Your task to perform on an android device: Is it going to rain today? Image 0: 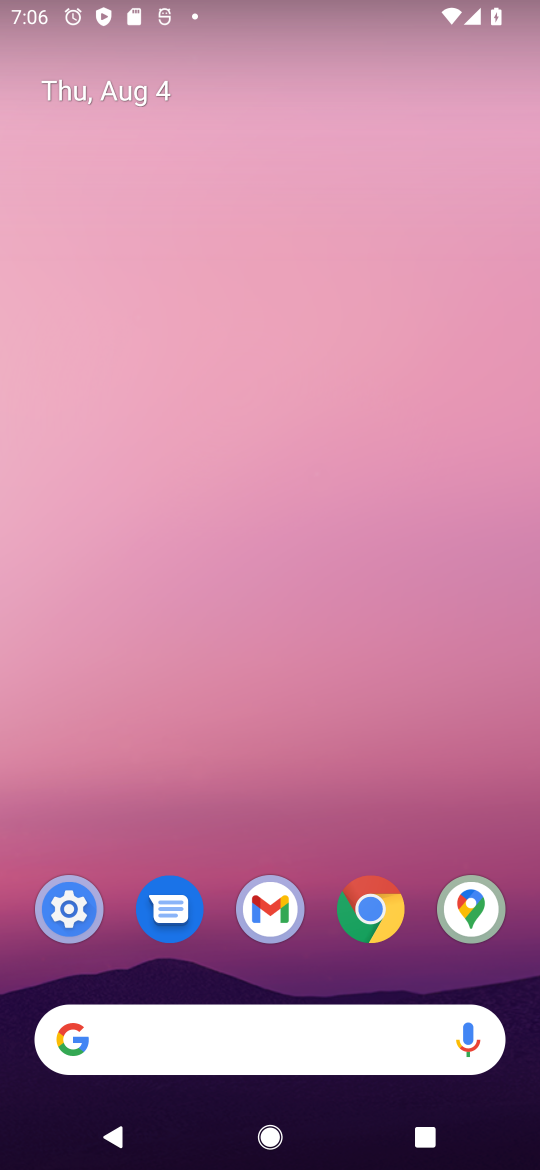
Step 0: drag from (141, 784) to (146, 19)
Your task to perform on an android device: Is it going to rain today? Image 1: 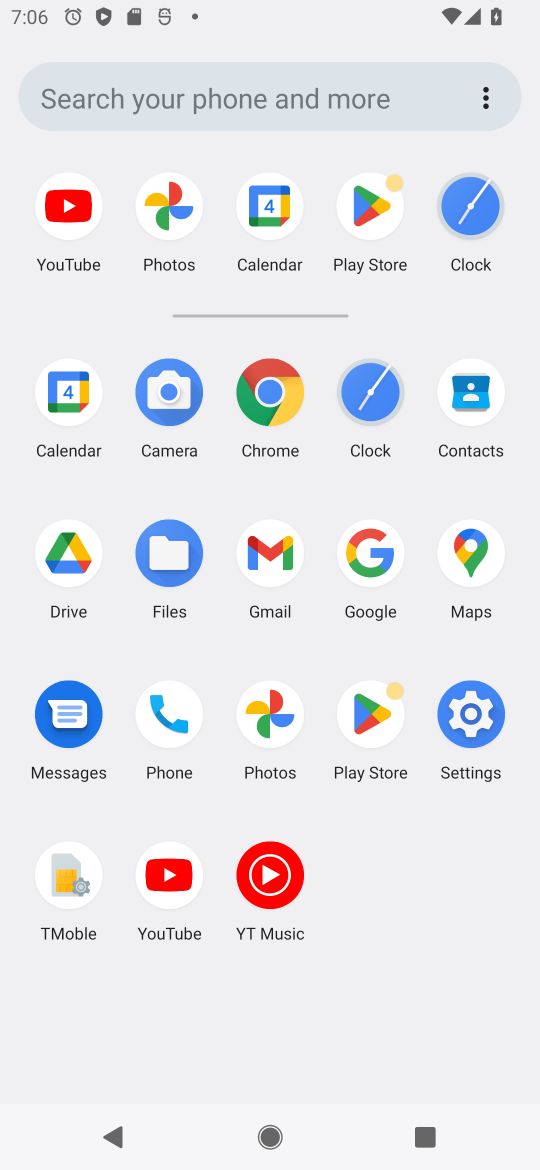
Step 1: click (377, 566)
Your task to perform on an android device: Is it going to rain today? Image 2: 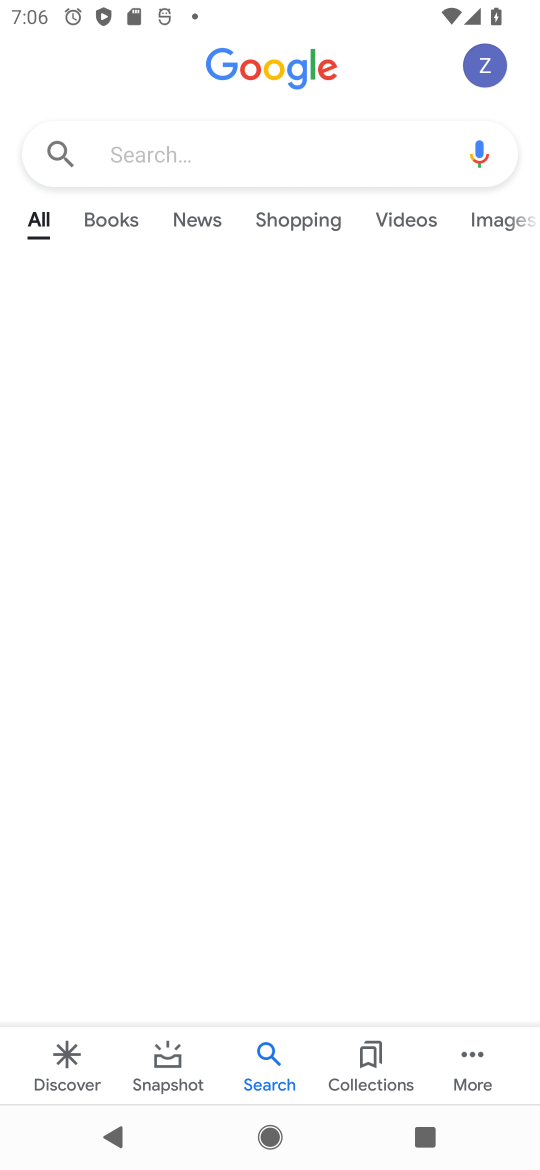
Step 2: click (133, 159)
Your task to perform on an android device: Is it going to rain today? Image 3: 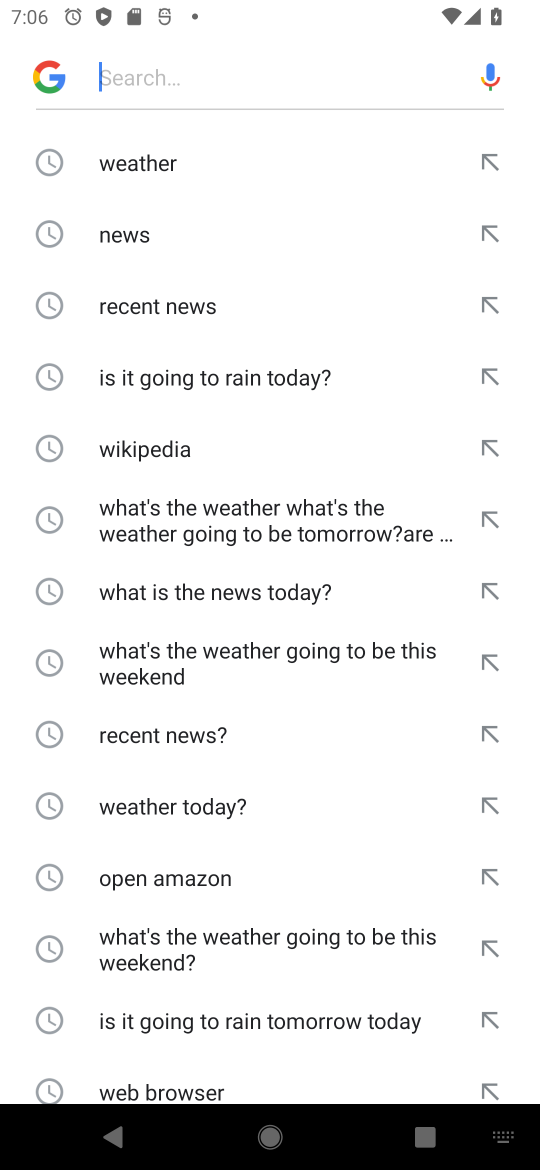
Step 3: click (133, 159)
Your task to perform on an android device: Is it going to rain today? Image 4: 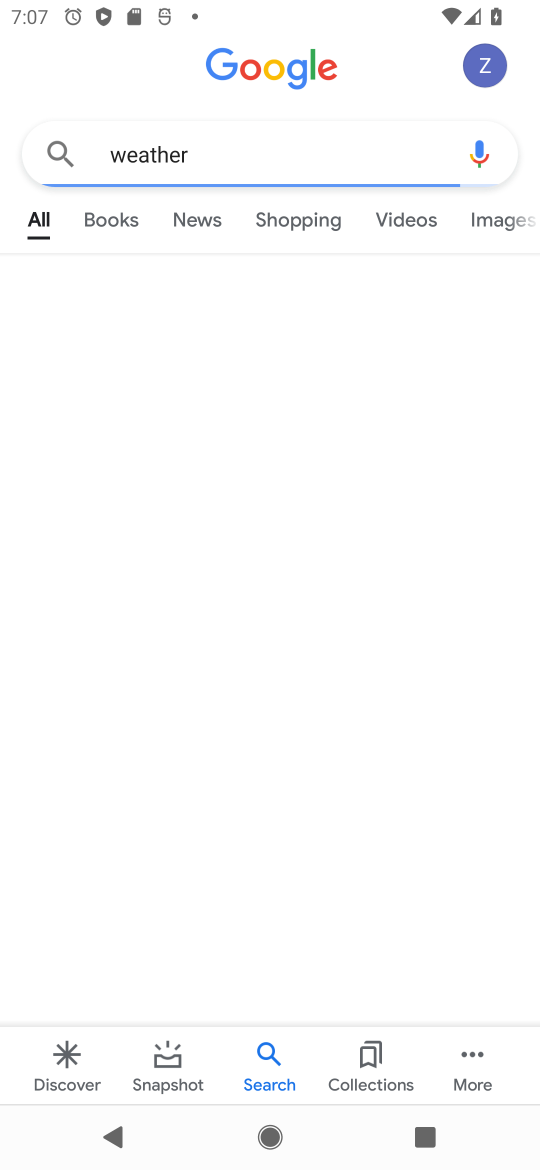
Step 4: click (231, 155)
Your task to perform on an android device: Is it going to rain today? Image 5: 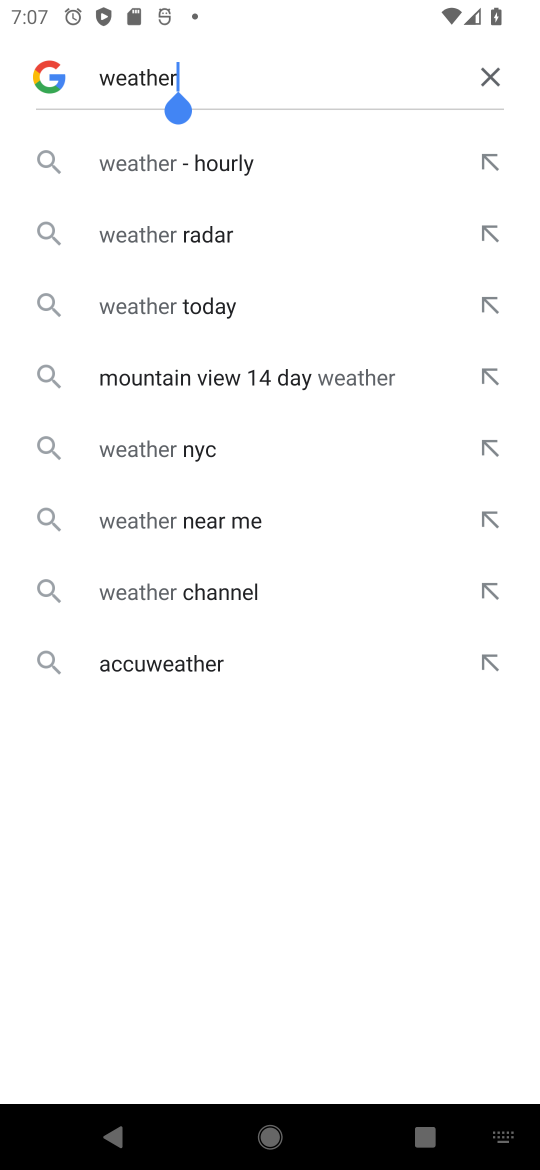
Step 5: press enter
Your task to perform on an android device: Is it going to rain today? Image 6: 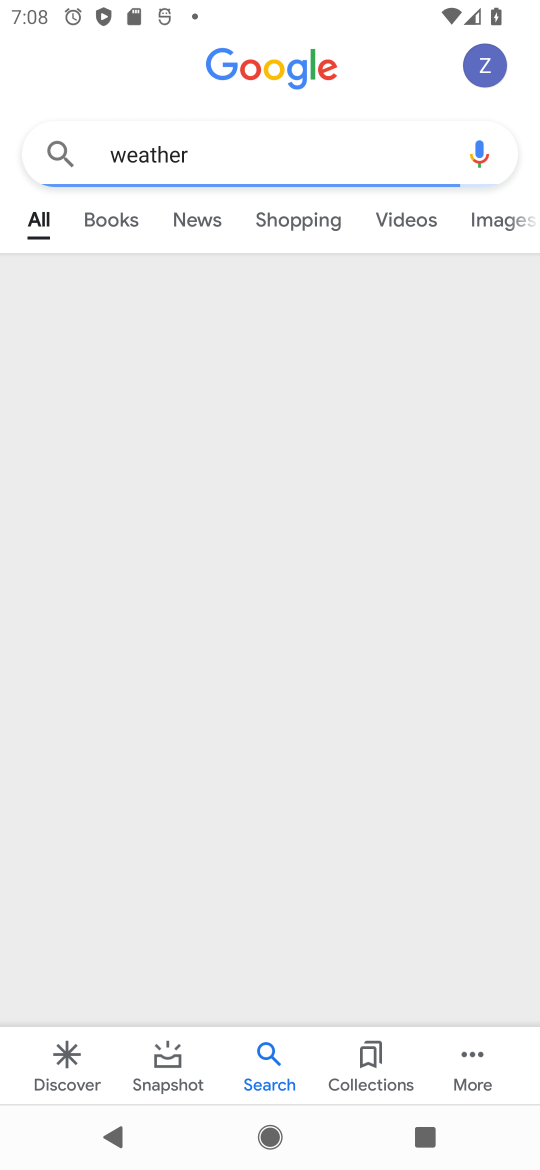
Step 6: task complete